Your task to perform on an android device: turn on bluetooth scan Image 0: 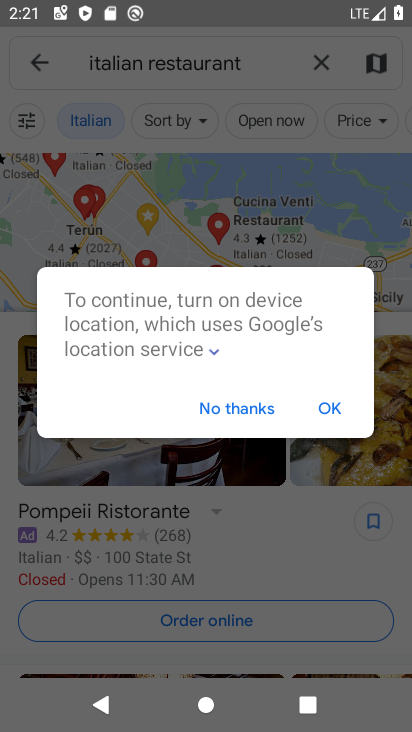
Step 0: press home button
Your task to perform on an android device: turn on bluetooth scan Image 1: 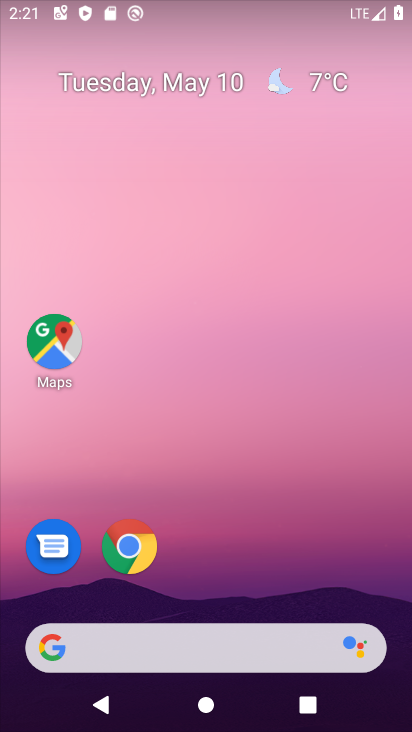
Step 1: drag from (356, 596) to (350, 216)
Your task to perform on an android device: turn on bluetooth scan Image 2: 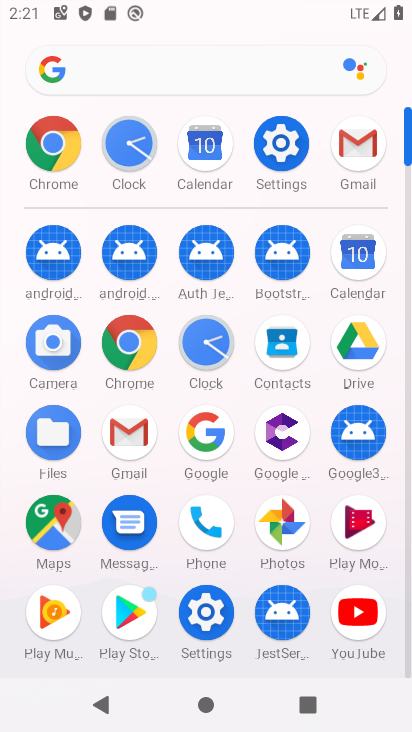
Step 2: click (291, 140)
Your task to perform on an android device: turn on bluetooth scan Image 3: 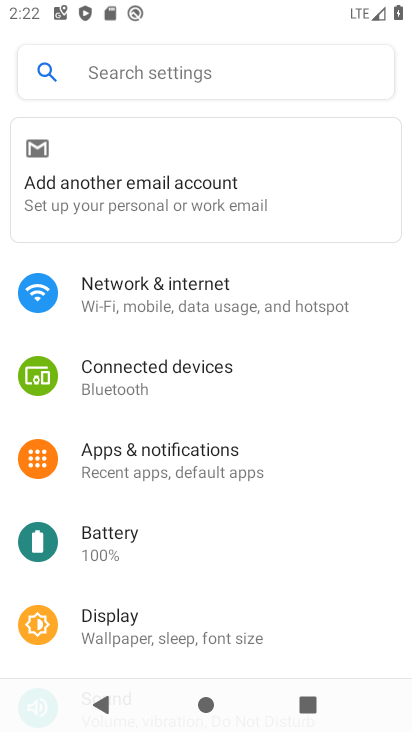
Step 3: drag from (203, 584) to (195, 256)
Your task to perform on an android device: turn on bluetooth scan Image 4: 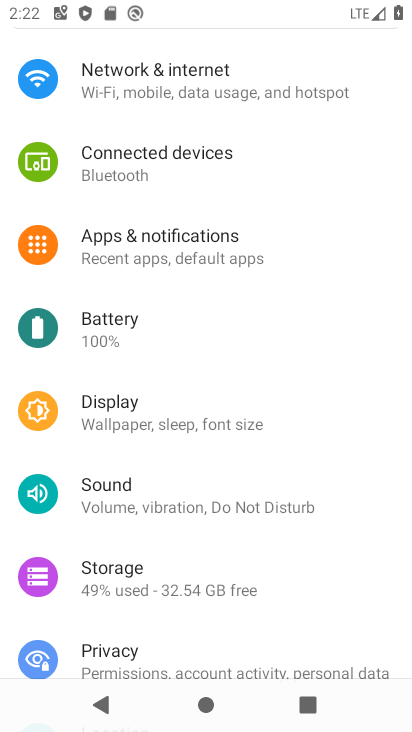
Step 4: drag from (193, 597) to (200, 318)
Your task to perform on an android device: turn on bluetooth scan Image 5: 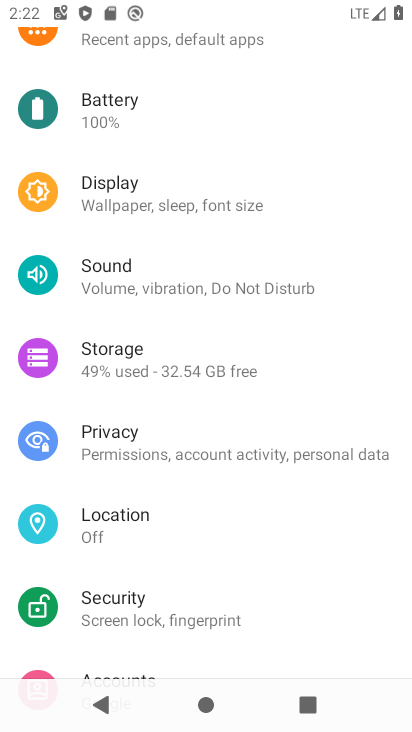
Step 5: click (140, 527)
Your task to perform on an android device: turn on bluetooth scan Image 6: 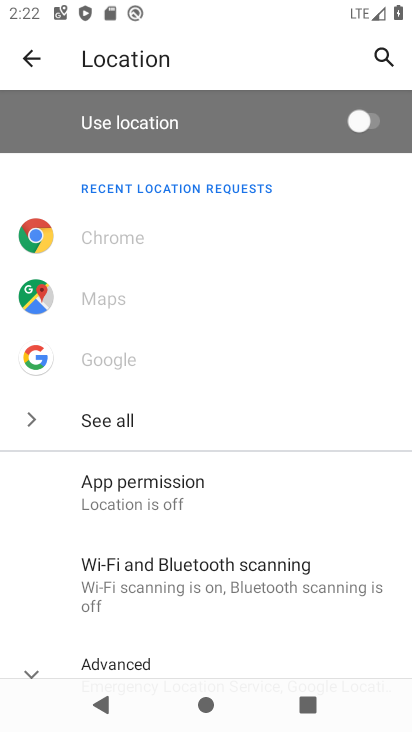
Step 6: drag from (148, 555) to (138, 264)
Your task to perform on an android device: turn on bluetooth scan Image 7: 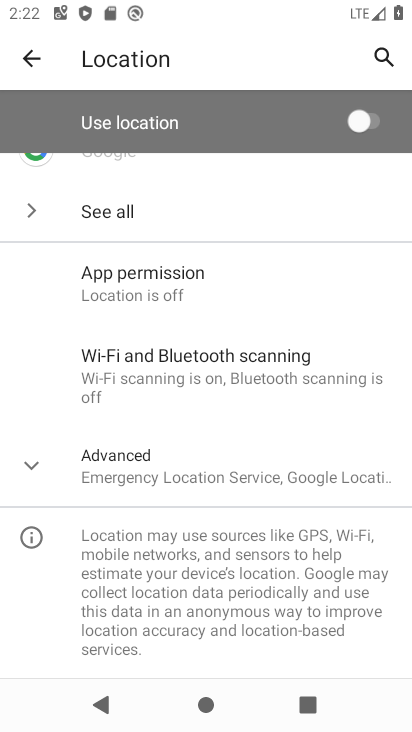
Step 7: click (130, 368)
Your task to perform on an android device: turn on bluetooth scan Image 8: 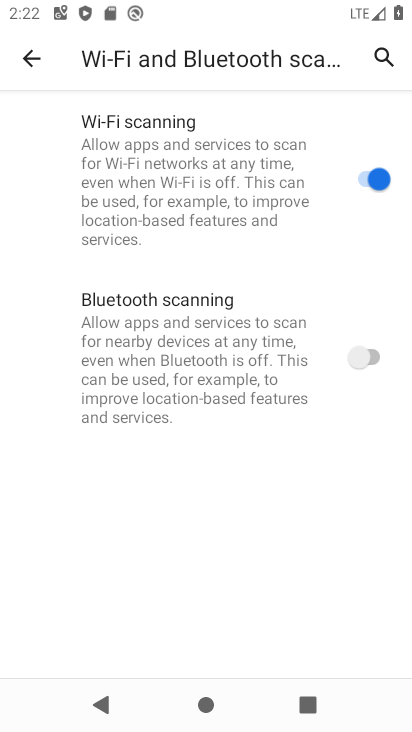
Step 8: click (376, 369)
Your task to perform on an android device: turn on bluetooth scan Image 9: 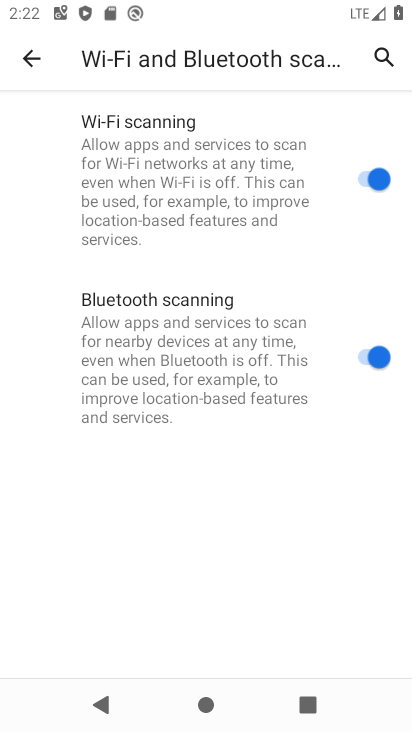
Step 9: task complete